Your task to perform on an android device: Clear the cart on amazon. Add energizer triple a to the cart on amazon, then select checkout. Image 0: 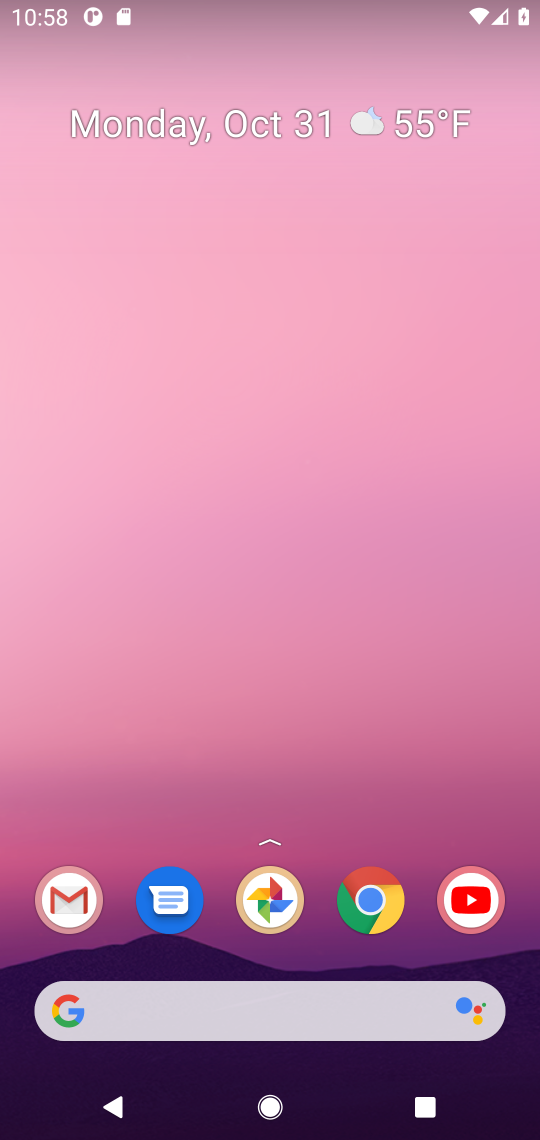
Step 0: click (364, 904)
Your task to perform on an android device: Clear the cart on amazon. Add energizer triple a to the cart on amazon, then select checkout. Image 1: 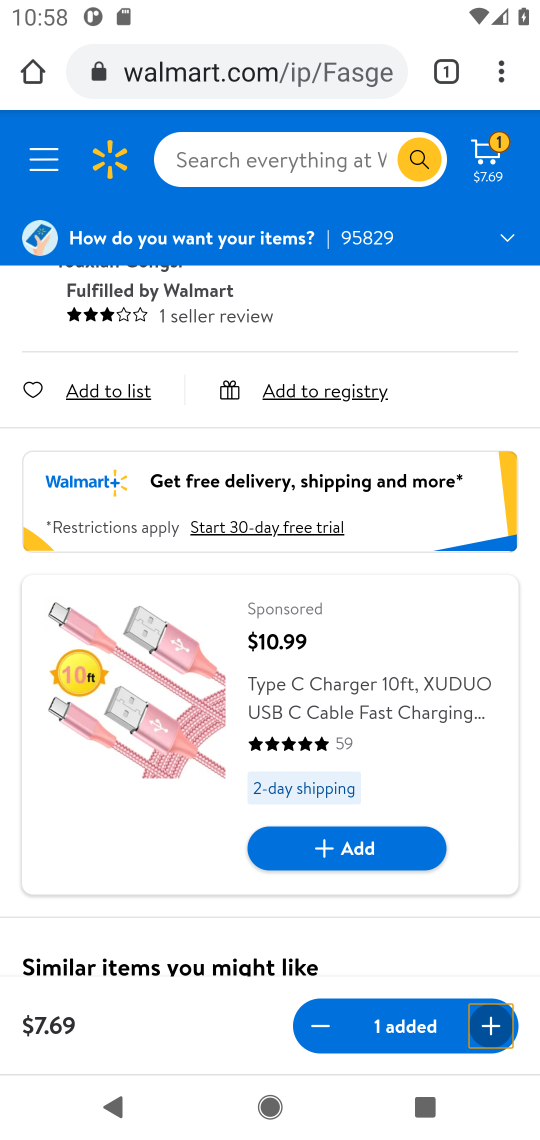
Step 1: click (271, 81)
Your task to perform on an android device: Clear the cart on amazon. Add energizer triple a to the cart on amazon, then select checkout. Image 2: 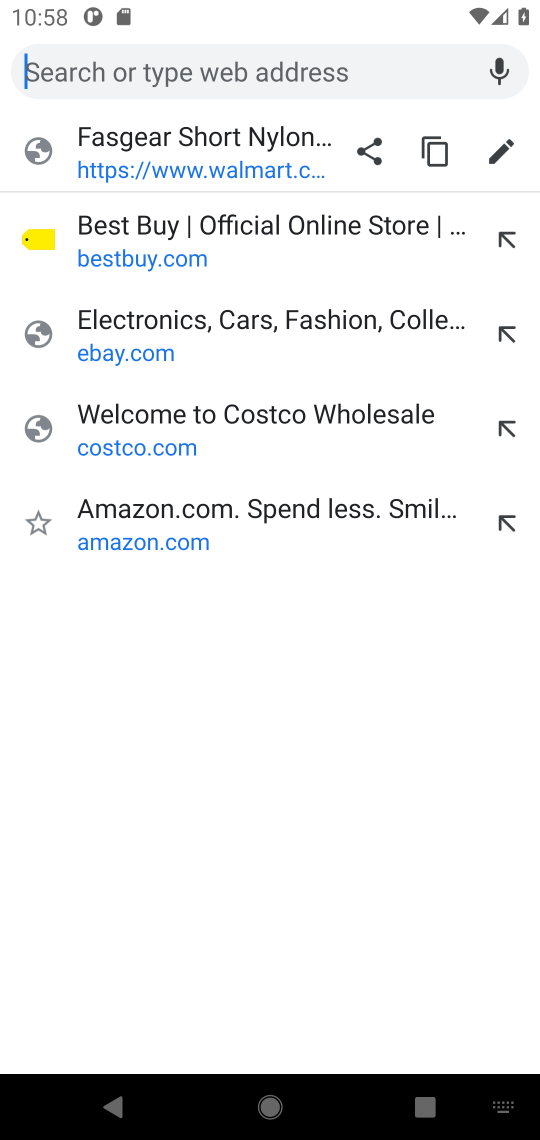
Step 2: click (157, 524)
Your task to perform on an android device: Clear the cart on amazon. Add energizer triple a to the cart on amazon, then select checkout. Image 3: 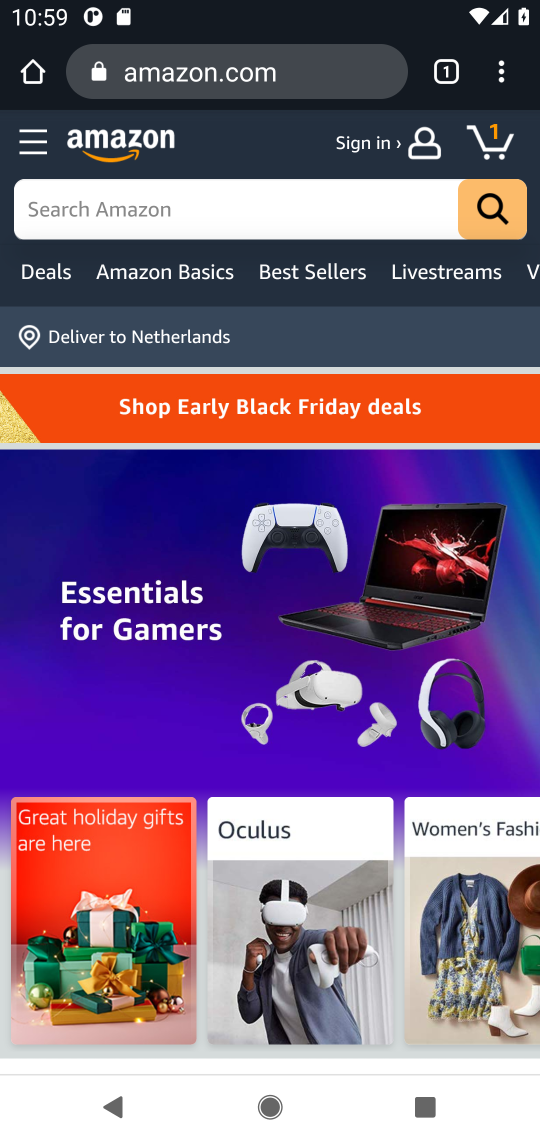
Step 3: click (176, 212)
Your task to perform on an android device: Clear the cart on amazon. Add energizer triple a to the cart on amazon, then select checkout. Image 4: 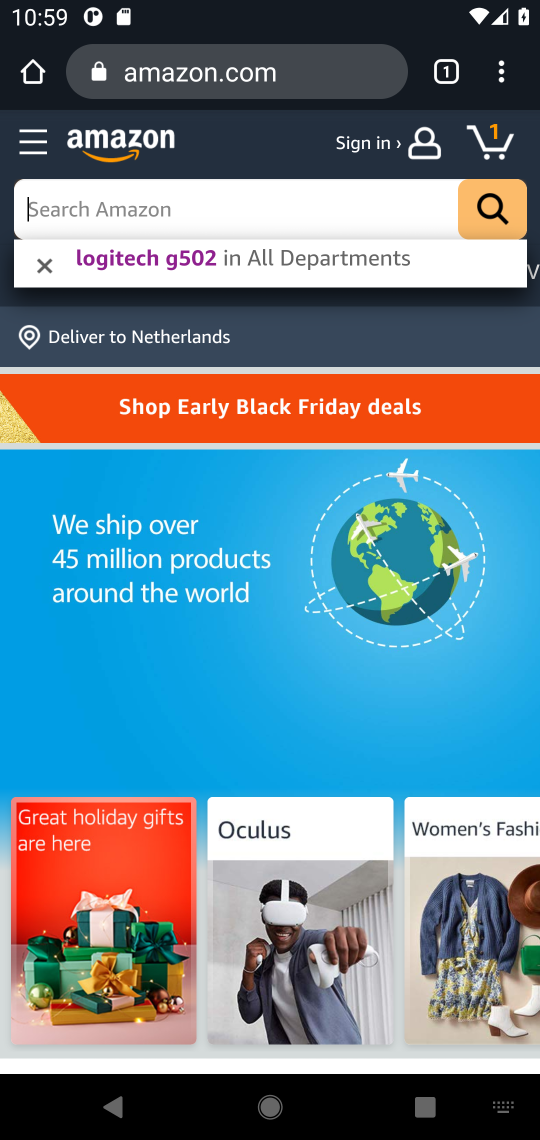
Step 4: click (253, 221)
Your task to perform on an android device: Clear the cart on amazon. Add energizer triple a to the cart on amazon, then select checkout. Image 5: 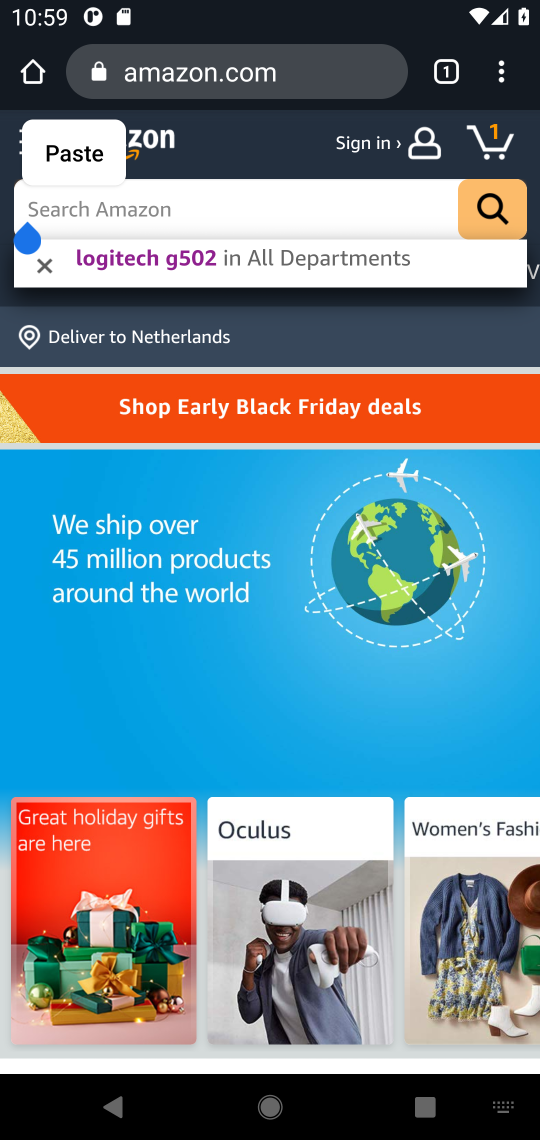
Step 5: type " energizer triple a"
Your task to perform on an android device: Clear the cart on amazon. Add energizer triple a to the cart on amazon, then select checkout. Image 6: 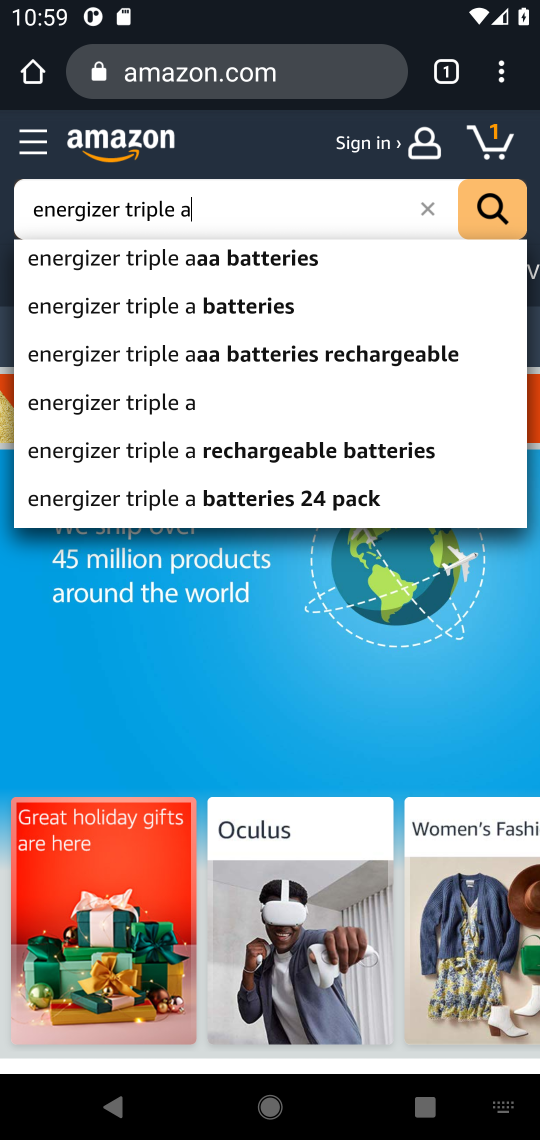
Step 6: click (127, 405)
Your task to perform on an android device: Clear the cart on amazon. Add energizer triple a to the cart on amazon, then select checkout. Image 7: 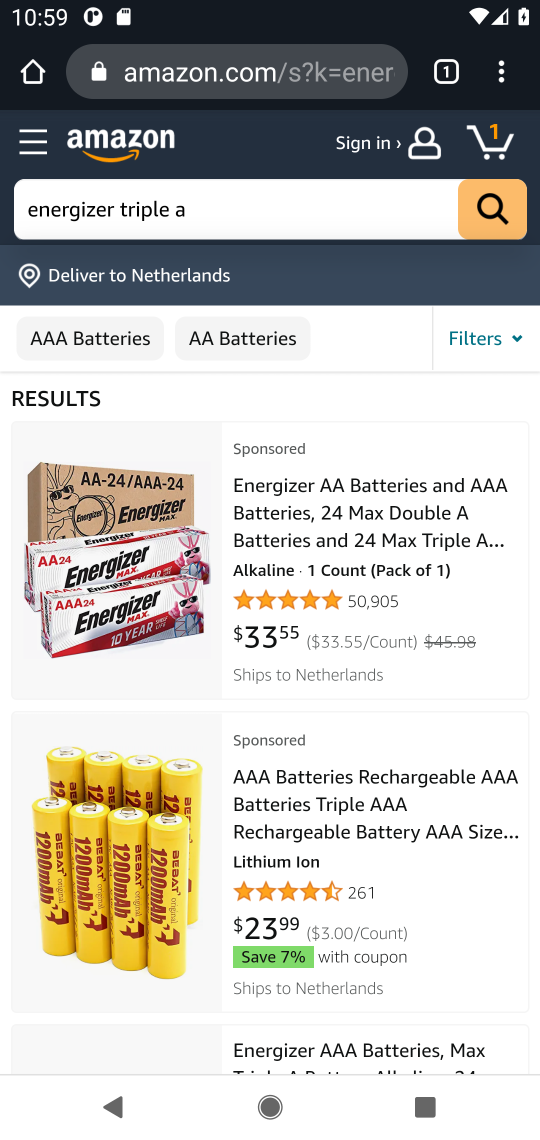
Step 7: click (117, 558)
Your task to perform on an android device: Clear the cart on amazon. Add energizer triple a to the cart on amazon, then select checkout. Image 8: 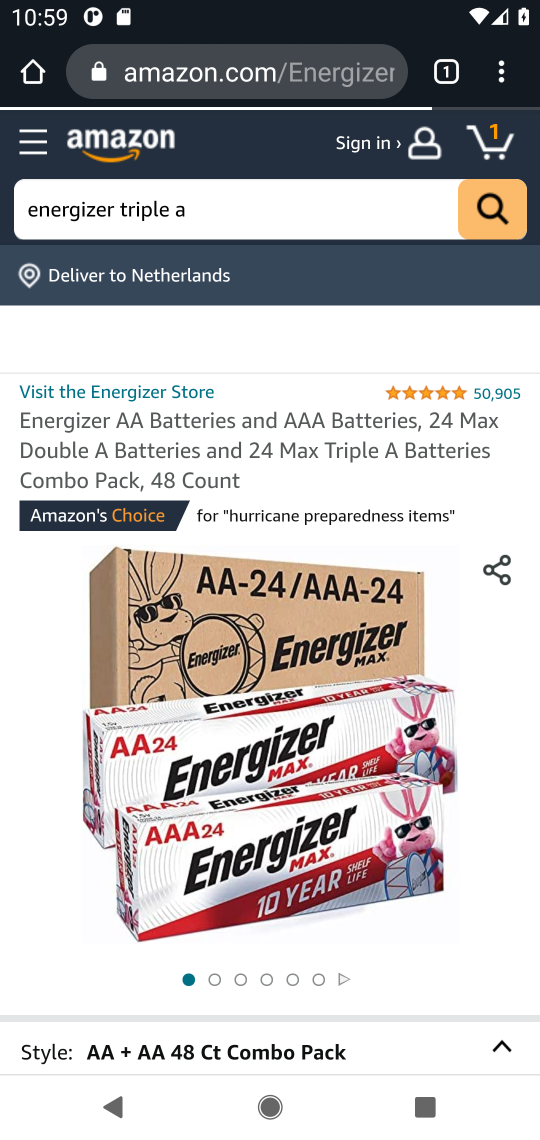
Step 8: drag from (269, 792) to (248, 378)
Your task to perform on an android device: Clear the cart on amazon. Add energizer triple a to the cart on amazon, then select checkout. Image 9: 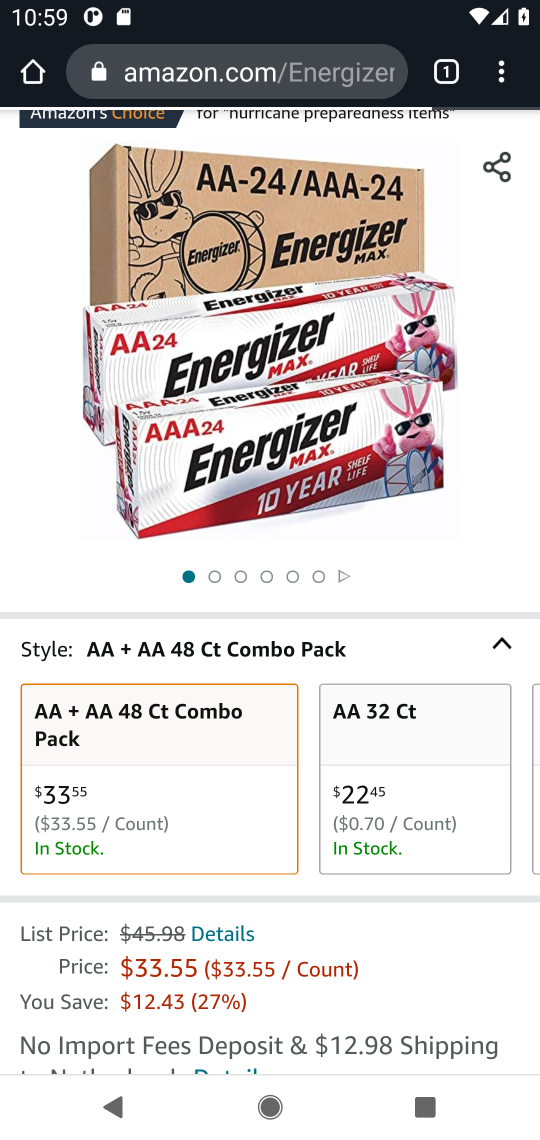
Step 9: drag from (176, 876) to (168, 449)
Your task to perform on an android device: Clear the cart on amazon. Add energizer triple a to the cart on amazon, then select checkout. Image 10: 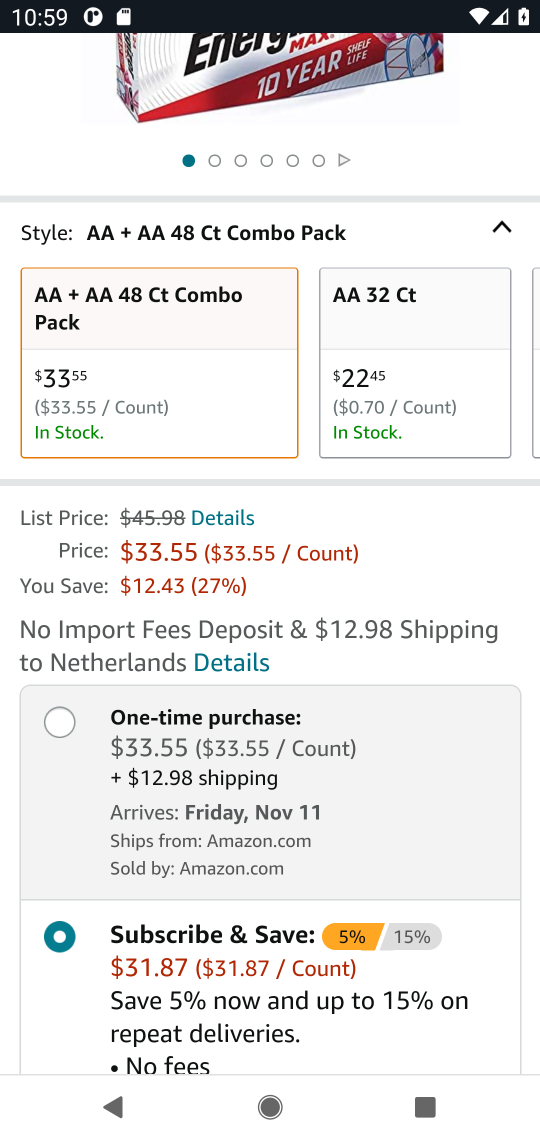
Step 10: drag from (140, 891) to (155, 431)
Your task to perform on an android device: Clear the cart on amazon. Add energizer triple a to the cart on amazon, then select checkout. Image 11: 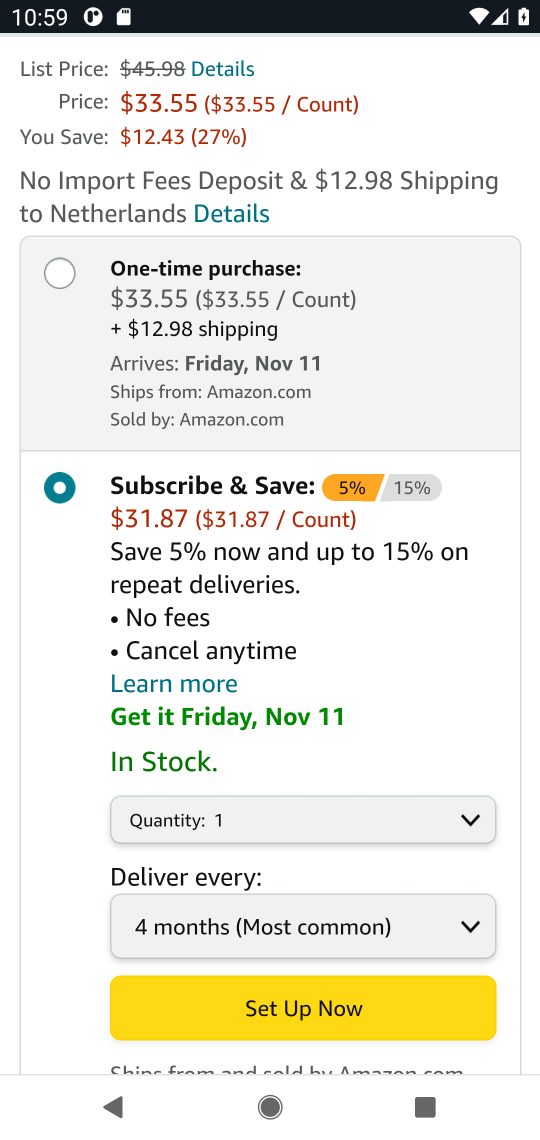
Step 11: click (51, 273)
Your task to perform on an android device: Clear the cart on amazon. Add energizer triple a to the cart on amazon, then select checkout. Image 12: 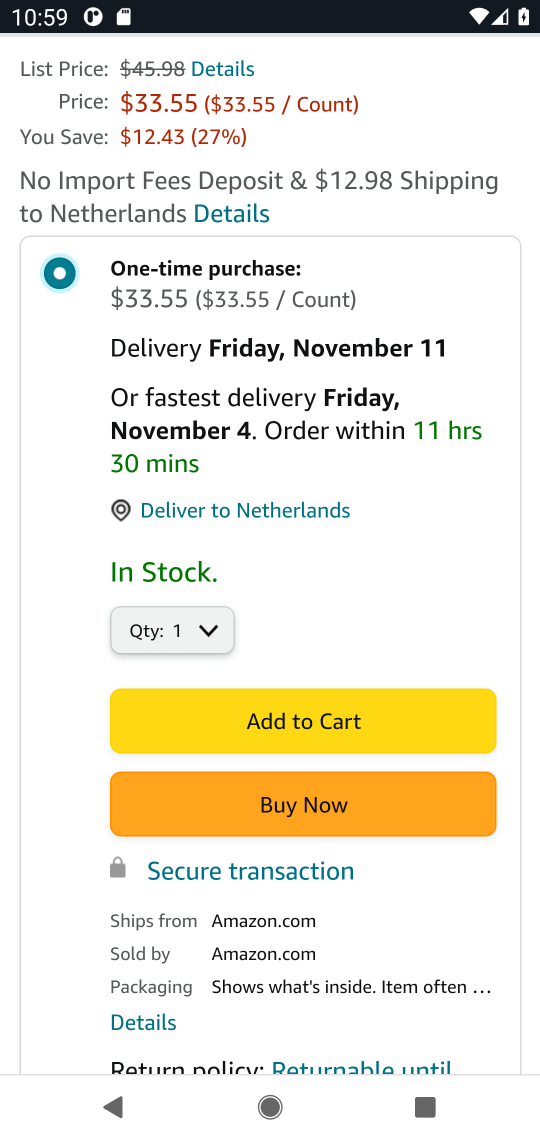
Step 12: click (283, 732)
Your task to perform on an android device: Clear the cart on amazon. Add energizer triple a to the cart on amazon, then select checkout. Image 13: 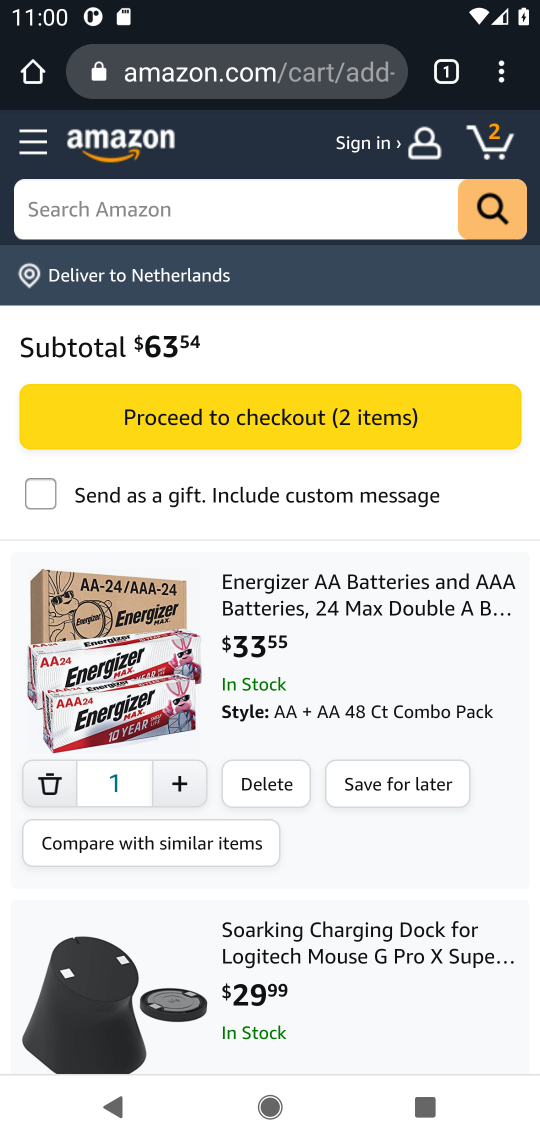
Step 13: click (267, 405)
Your task to perform on an android device: Clear the cart on amazon. Add energizer triple a to the cart on amazon, then select checkout. Image 14: 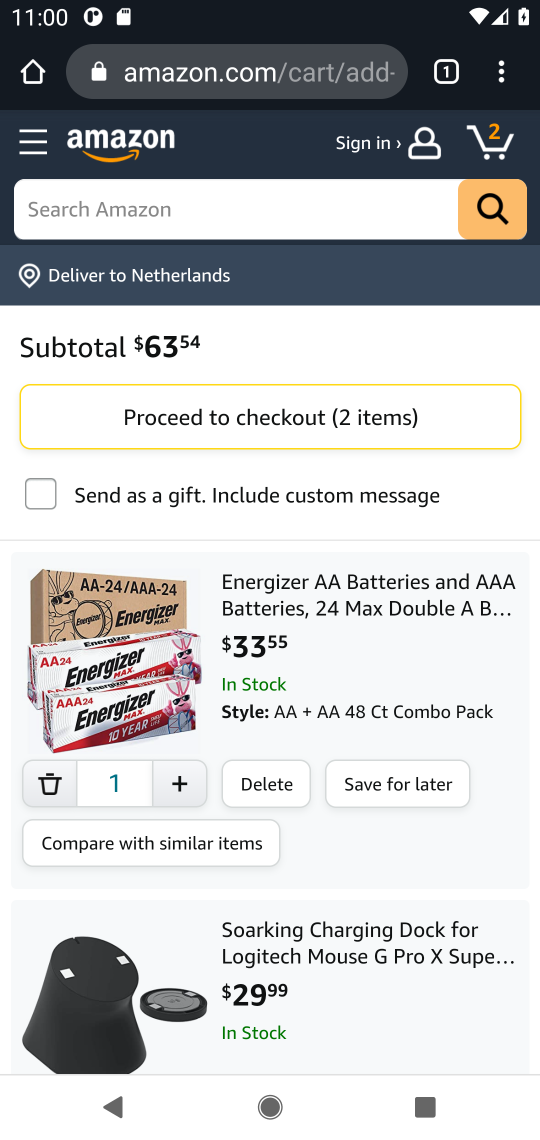
Step 14: click (232, 416)
Your task to perform on an android device: Clear the cart on amazon. Add energizer triple a to the cart on amazon, then select checkout. Image 15: 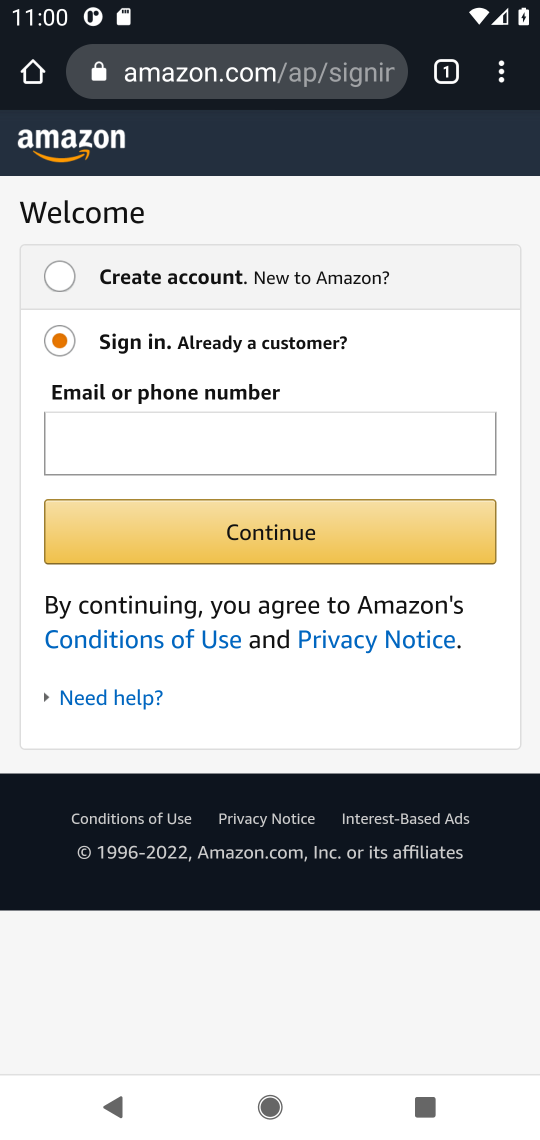
Step 15: task complete